Your task to perform on an android device: clear all cookies in the chrome app Image 0: 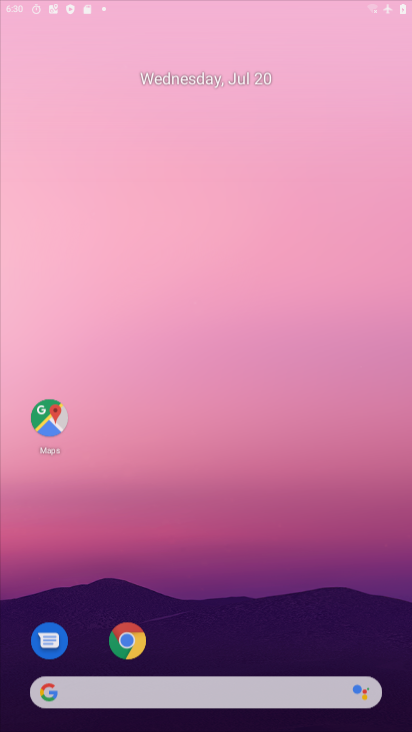
Step 0: press home button
Your task to perform on an android device: clear all cookies in the chrome app Image 1: 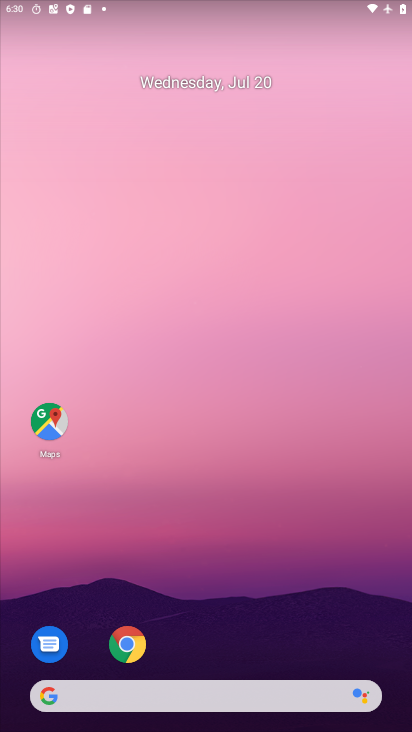
Step 1: drag from (234, 648) to (229, 39)
Your task to perform on an android device: clear all cookies in the chrome app Image 2: 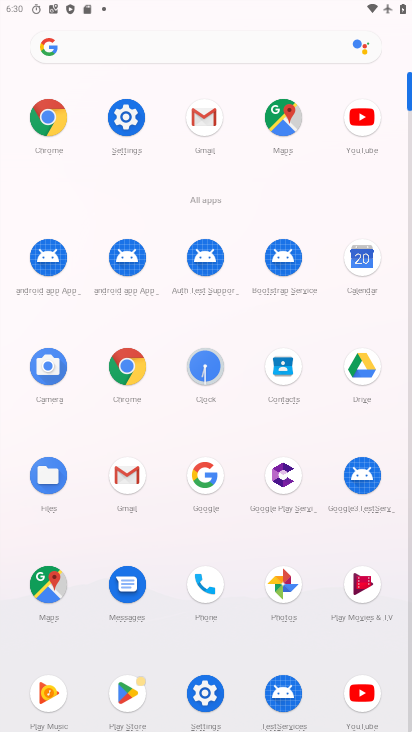
Step 2: click (53, 126)
Your task to perform on an android device: clear all cookies in the chrome app Image 3: 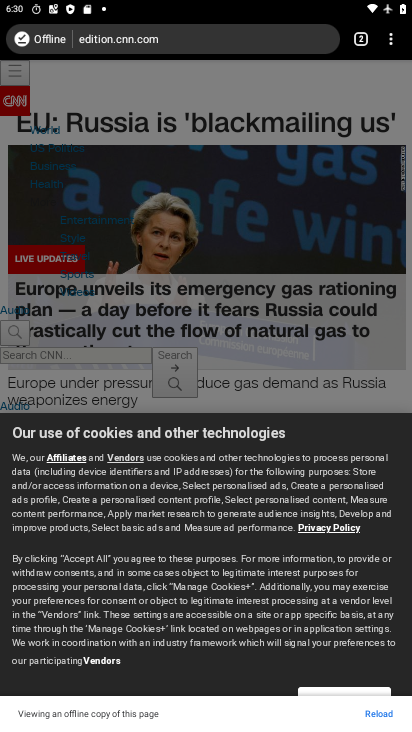
Step 3: drag from (391, 36) to (287, 433)
Your task to perform on an android device: clear all cookies in the chrome app Image 4: 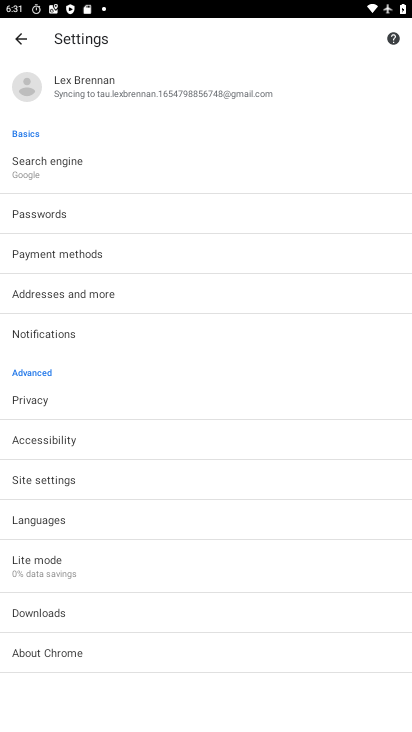
Step 4: click (22, 406)
Your task to perform on an android device: clear all cookies in the chrome app Image 5: 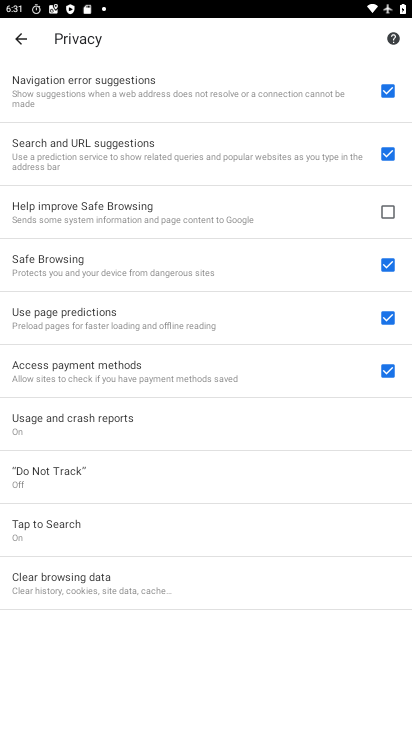
Step 5: click (67, 588)
Your task to perform on an android device: clear all cookies in the chrome app Image 6: 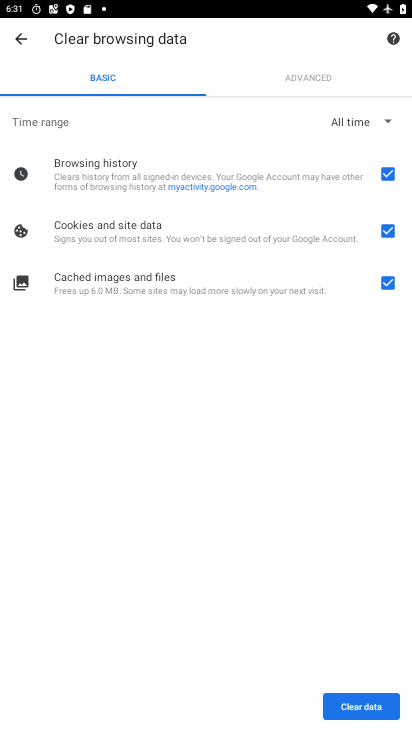
Step 6: click (387, 177)
Your task to perform on an android device: clear all cookies in the chrome app Image 7: 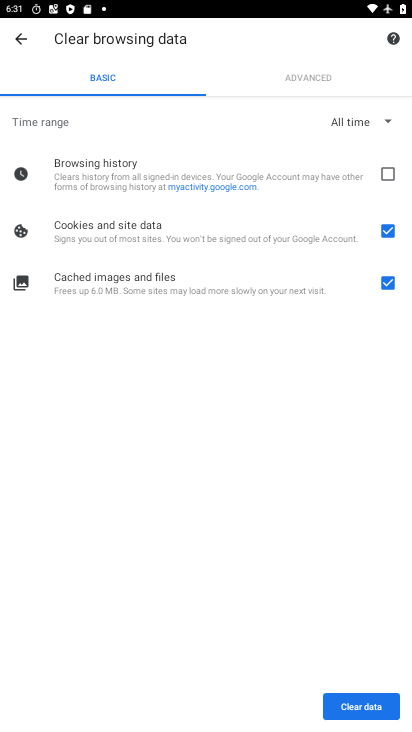
Step 7: click (385, 287)
Your task to perform on an android device: clear all cookies in the chrome app Image 8: 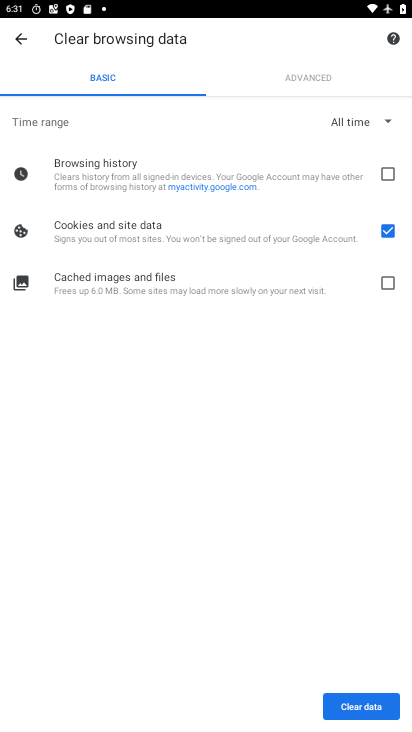
Step 8: click (365, 705)
Your task to perform on an android device: clear all cookies in the chrome app Image 9: 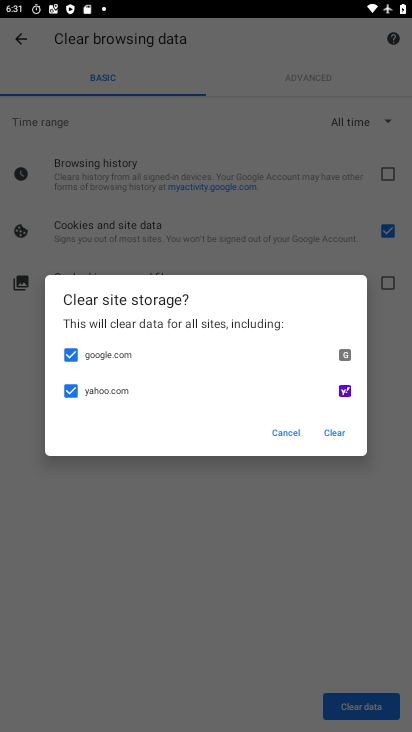
Step 9: click (332, 434)
Your task to perform on an android device: clear all cookies in the chrome app Image 10: 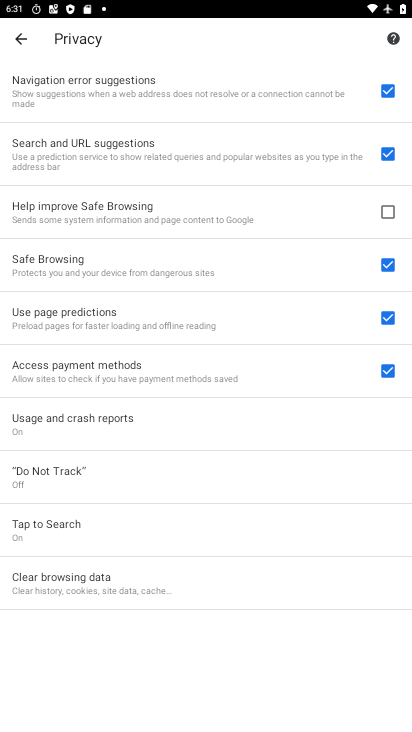
Step 10: task complete